Your task to perform on an android device: open a new tab in the chrome app Image 0: 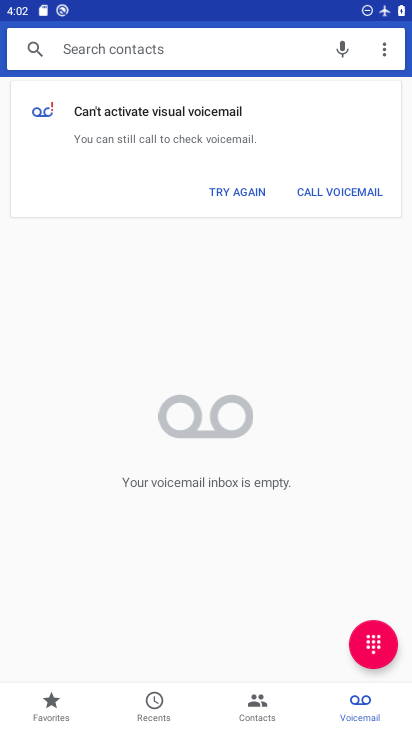
Step 0: press home button
Your task to perform on an android device: open a new tab in the chrome app Image 1: 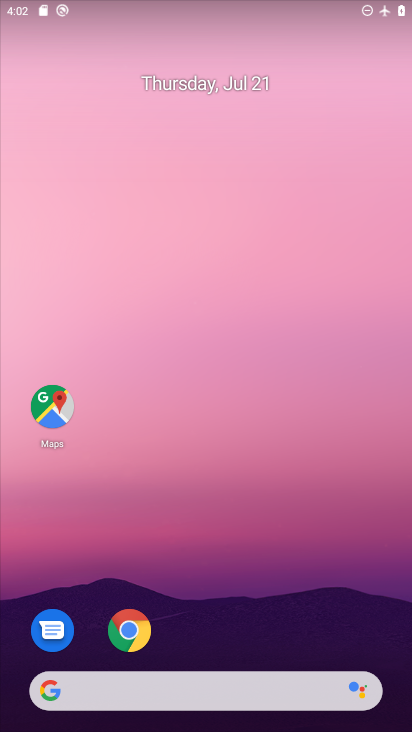
Step 1: drag from (212, 639) to (351, 499)
Your task to perform on an android device: open a new tab in the chrome app Image 2: 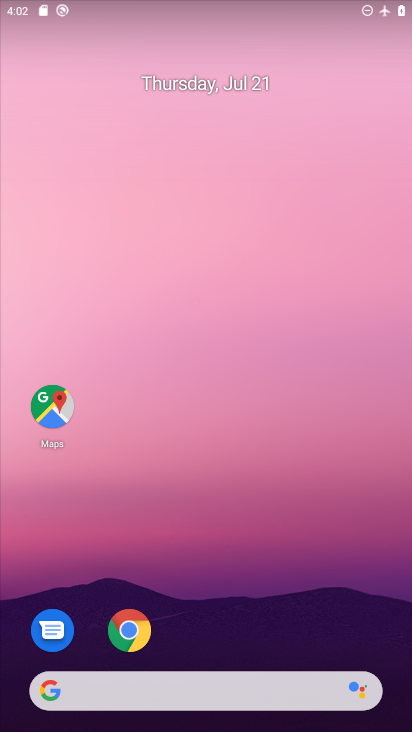
Step 2: click (120, 382)
Your task to perform on an android device: open a new tab in the chrome app Image 3: 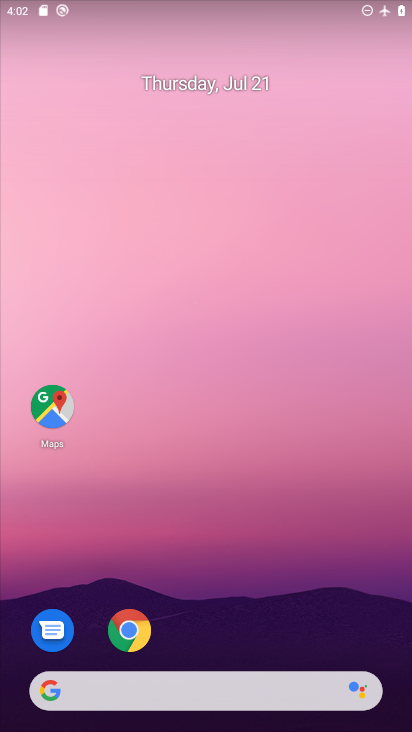
Step 3: drag from (212, 663) to (223, 2)
Your task to perform on an android device: open a new tab in the chrome app Image 4: 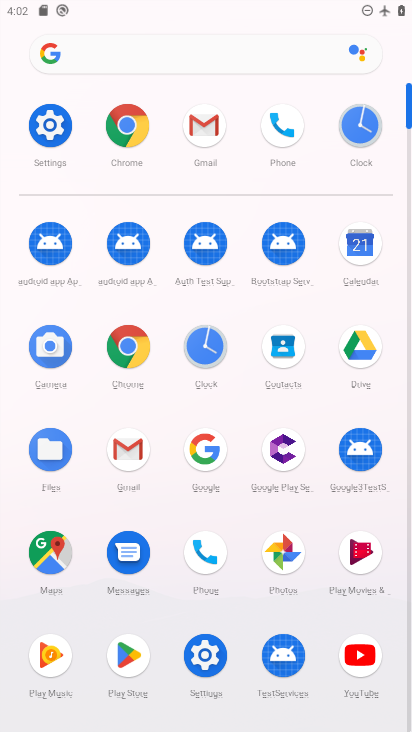
Step 4: click (143, 129)
Your task to perform on an android device: open a new tab in the chrome app Image 5: 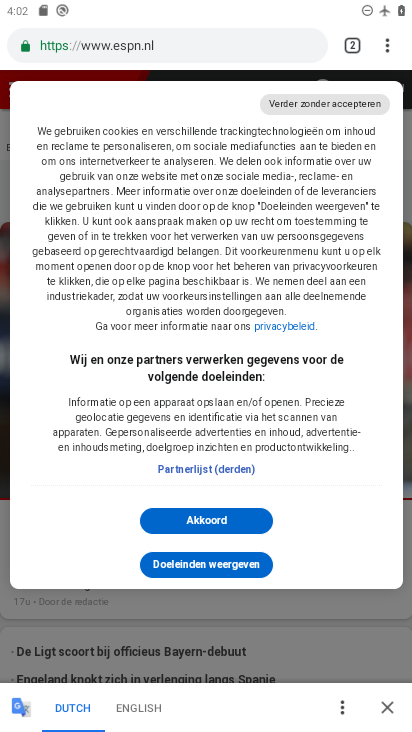
Step 5: click (200, 523)
Your task to perform on an android device: open a new tab in the chrome app Image 6: 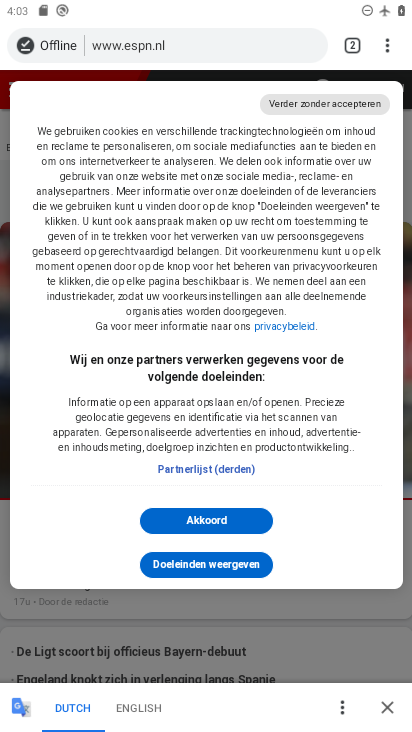
Step 6: click (346, 47)
Your task to perform on an android device: open a new tab in the chrome app Image 7: 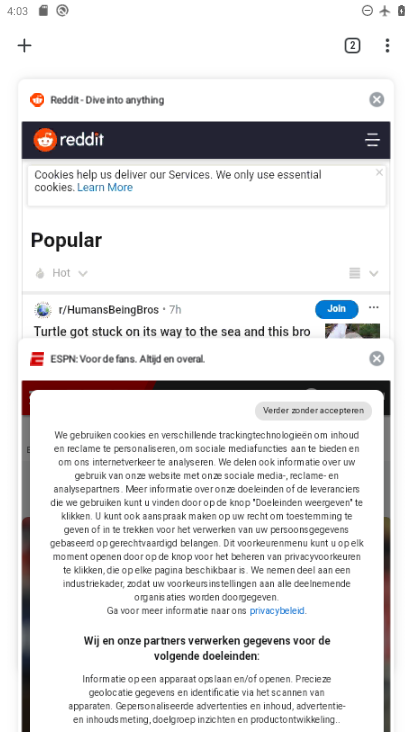
Step 7: click (24, 42)
Your task to perform on an android device: open a new tab in the chrome app Image 8: 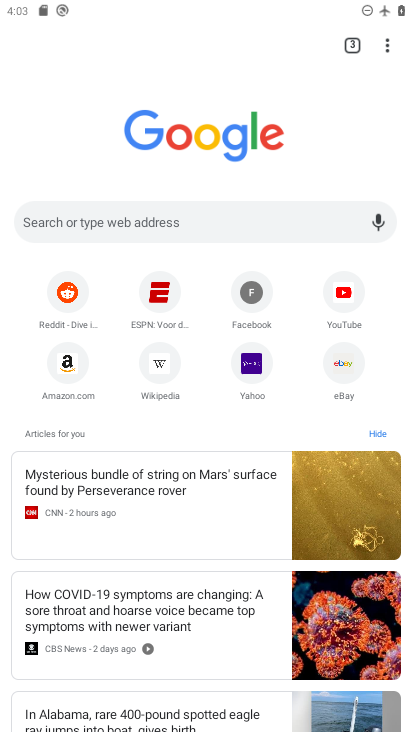
Step 8: task complete